Your task to perform on an android device: turn notification dots on Image 0: 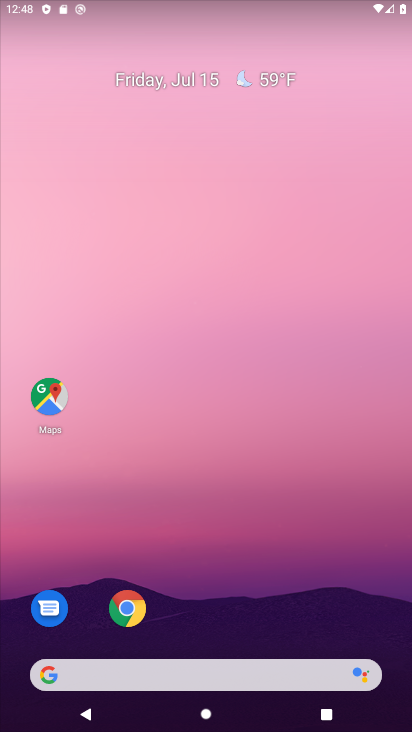
Step 0: drag from (206, 671) to (176, 99)
Your task to perform on an android device: turn notification dots on Image 1: 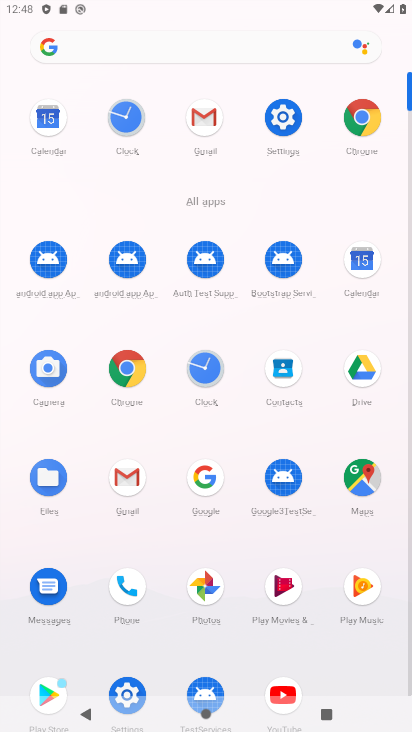
Step 1: click (275, 126)
Your task to perform on an android device: turn notification dots on Image 2: 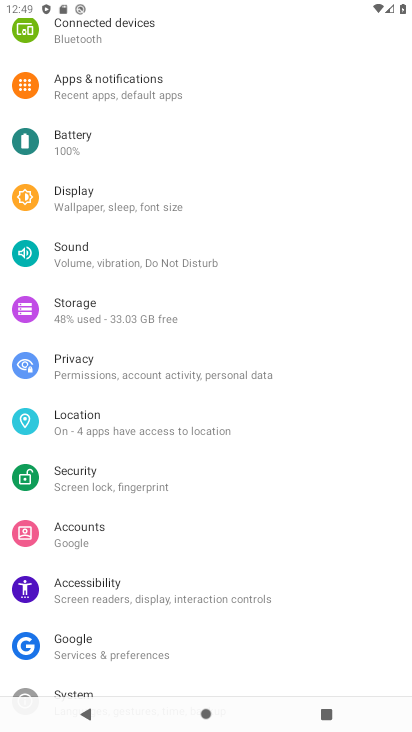
Step 2: click (108, 99)
Your task to perform on an android device: turn notification dots on Image 3: 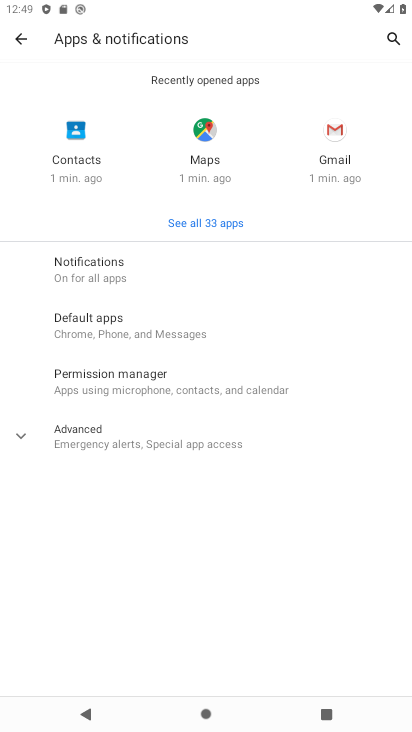
Step 3: click (101, 278)
Your task to perform on an android device: turn notification dots on Image 4: 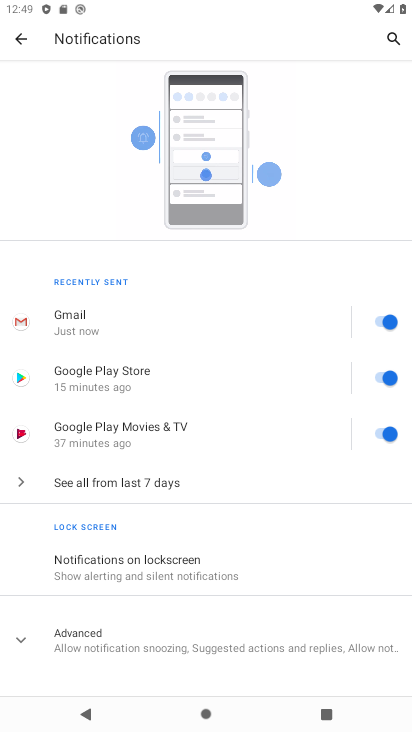
Step 4: click (129, 645)
Your task to perform on an android device: turn notification dots on Image 5: 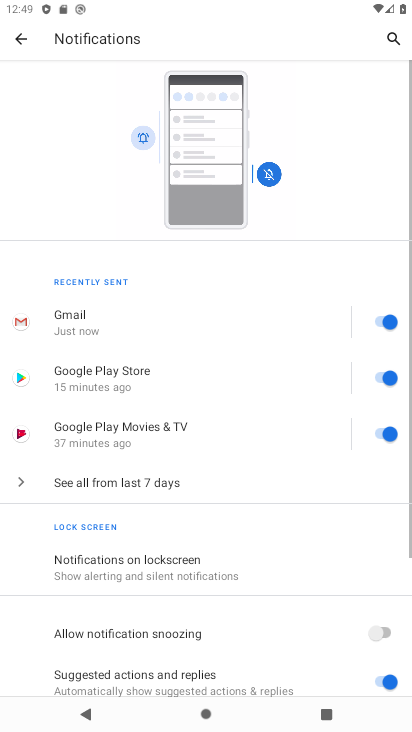
Step 5: task complete